Your task to perform on an android device: check storage Image 0: 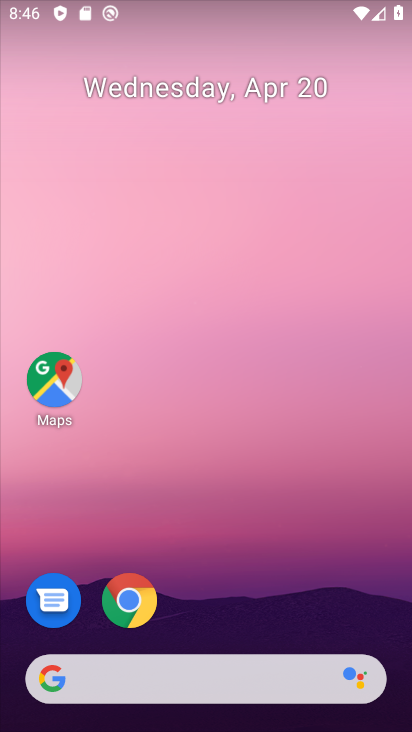
Step 0: click (199, 70)
Your task to perform on an android device: check storage Image 1: 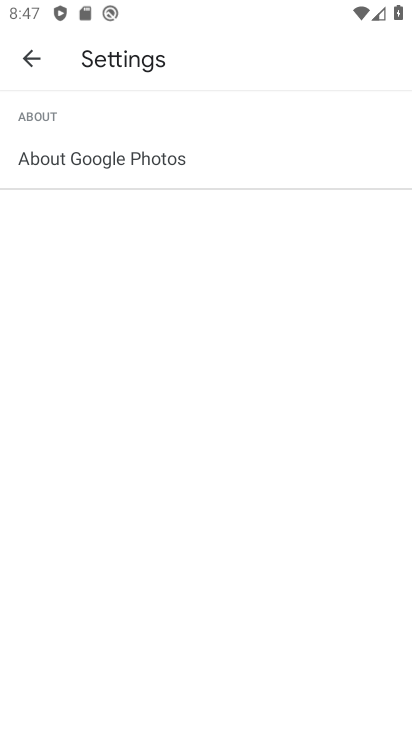
Step 1: press home button
Your task to perform on an android device: check storage Image 2: 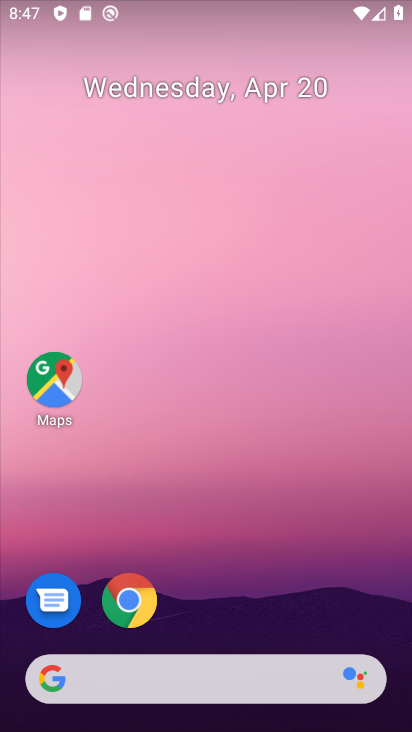
Step 2: drag from (189, 657) to (193, 119)
Your task to perform on an android device: check storage Image 3: 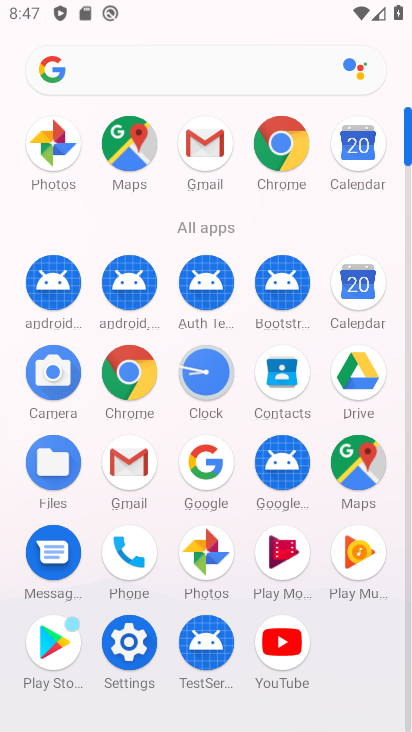
Step 3: click (130, 655)
Your task to perform on an android device: check storage Image 4: 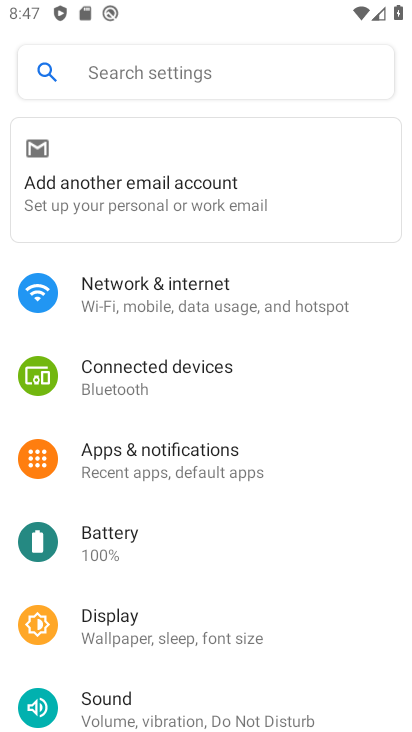
Step 4: drag from (162, 669) to (166, 182)
Your task to perform on an android device: check storage Image 5: 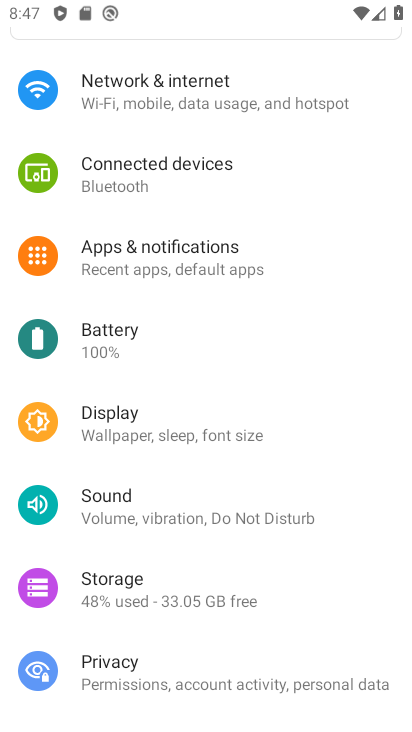
Step 5: click (137, 583)
Your task to perform on an android device: check storage Image 6: 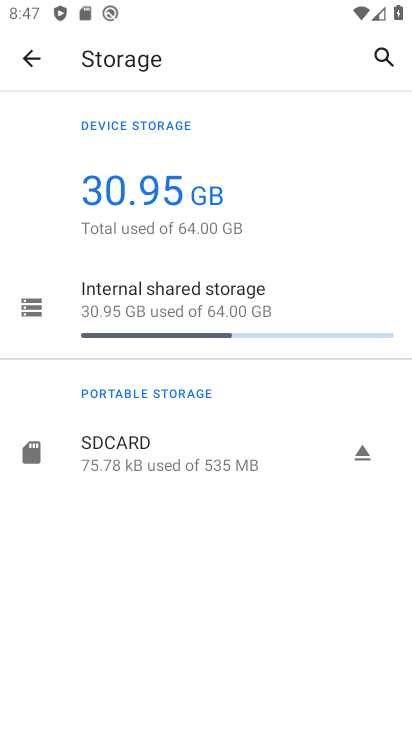
Step 6: click (213, 285)
Your task to perform on an android device: check storage Image 7: 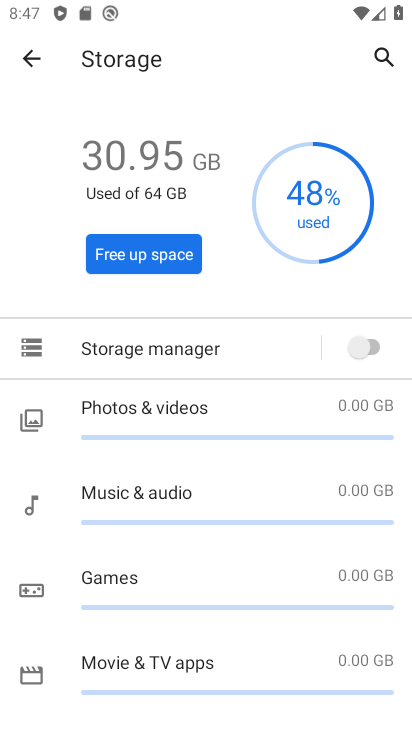
Step 7: task complete